Your task to perform on an android device: Open display settings Image 0: 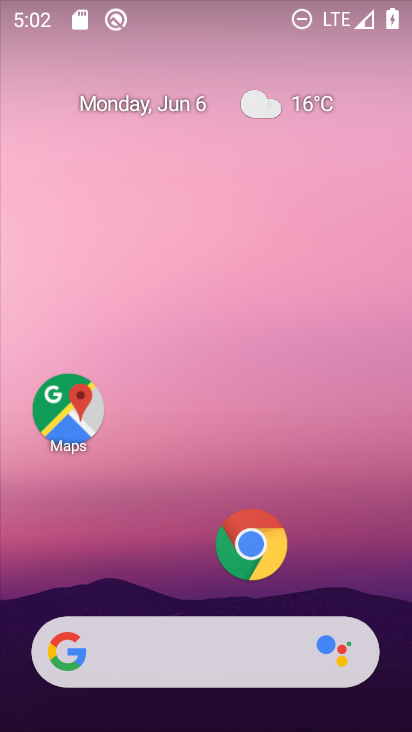
Step 0: drag from (204, 598) to (204, 64)
Your task to perform on an android device: Open display settings Image 1: 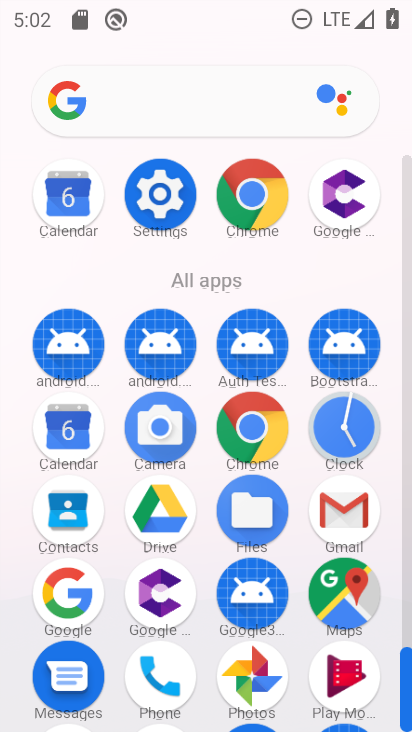
Step 1: click (158, 185)
Your task to perform on an android device: Open display settings Image 2: 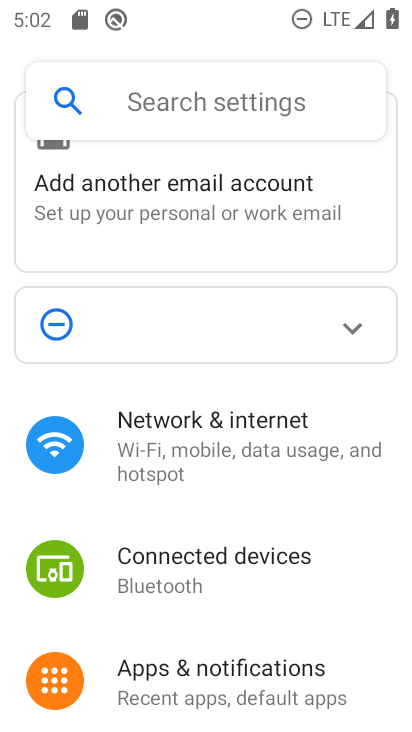
Step 2: drag from (98, 696) to (91, 125)
Your task to perform on an android device: Open display settings Image 3: 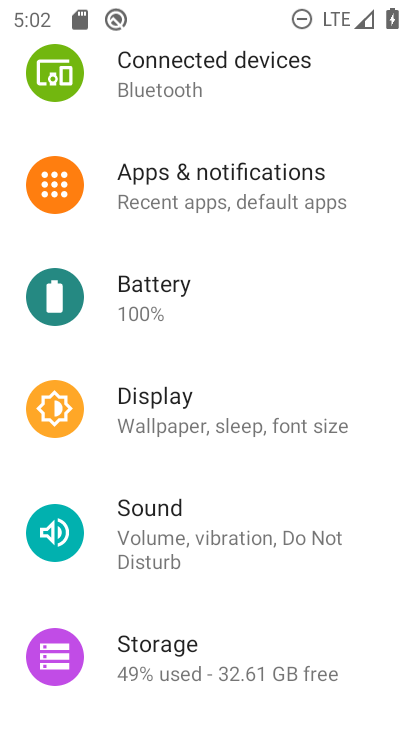
Step 3: click (97, 401)
Your task to perform on an android device: Open display settings Image 4: 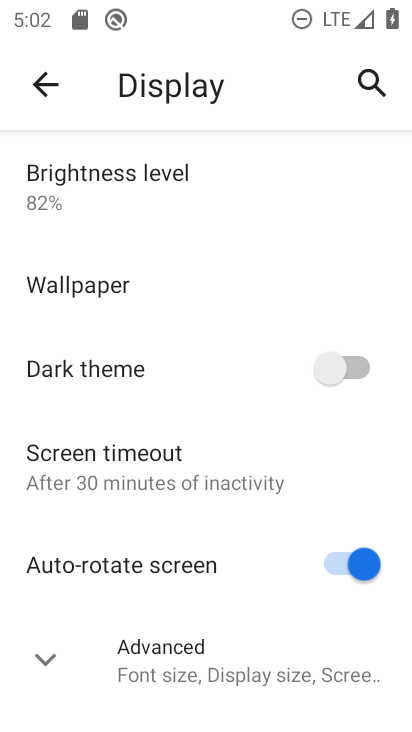
Step 4: click (47, 656)
Your task to perform on an android device: Open display settings Image 5: 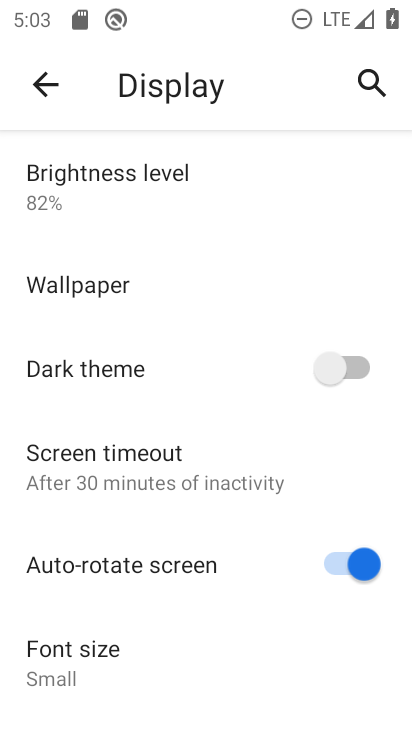
Step 5: task complete